Your task to perform on an android device: turn off smart reply in the gmail app Image 0: 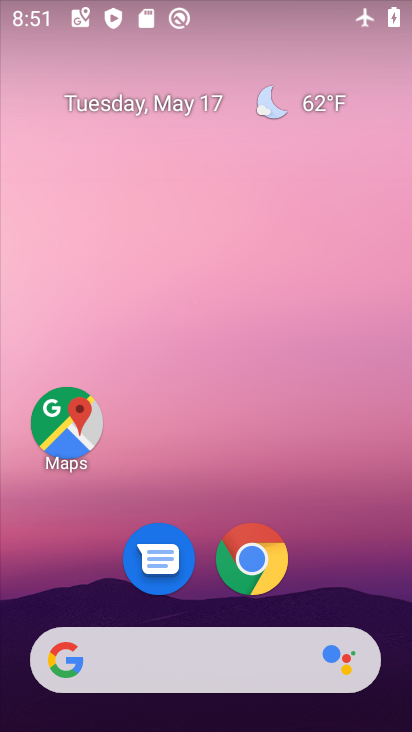
Step 0: drag from (283, 644) to (261, 184)
Your task to perform on an android device: turn off smart reply in the gmail app Image 1: 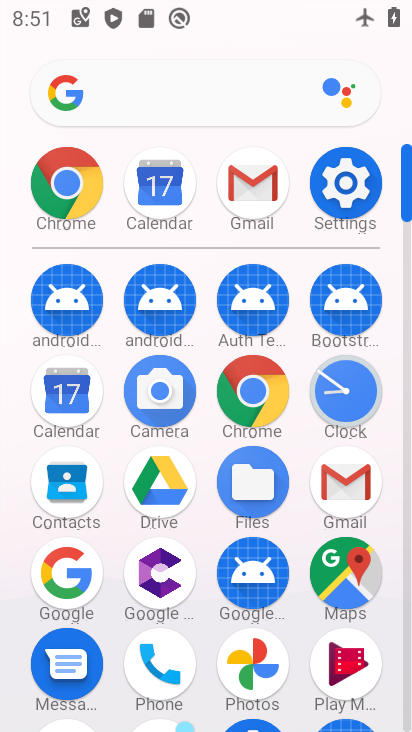
Step 1: click (349, 184)
Your task to perform on an android device: turn off smart reply in the gmail app Image 2: 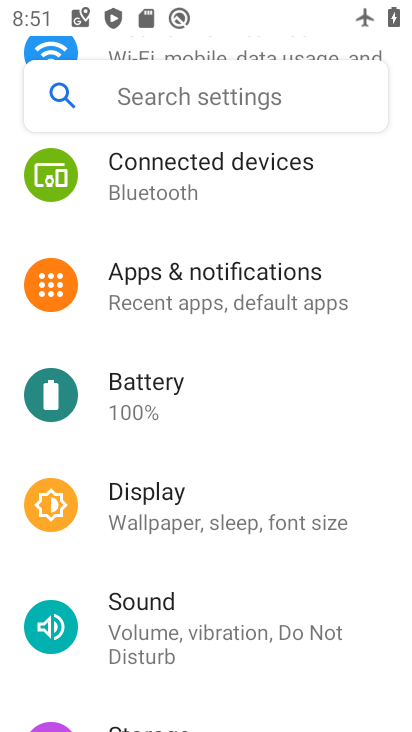
Step 2: press home button
Your task to perform on an android device: turn off smart reply in the gmail app Image 3: 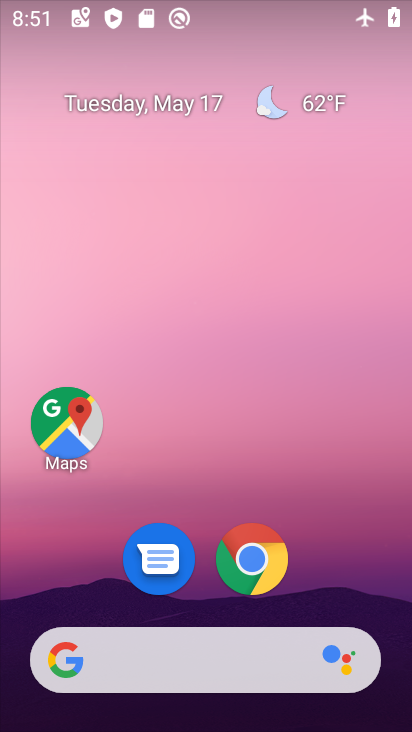
Step 3: drag from (202, 683) to (178, 219)
Your task to perform on an android device: turn off smart reply in the gmail app Image 4: 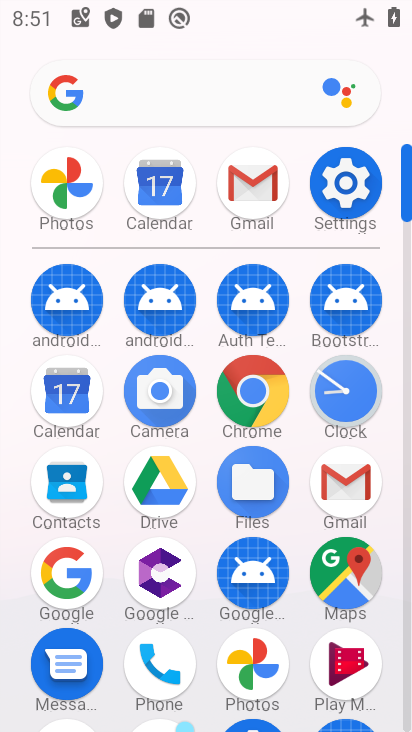
Step 4: click (273, 216)
Your task to perform on an android device: turn off smart reply in the gmail app Image 5: 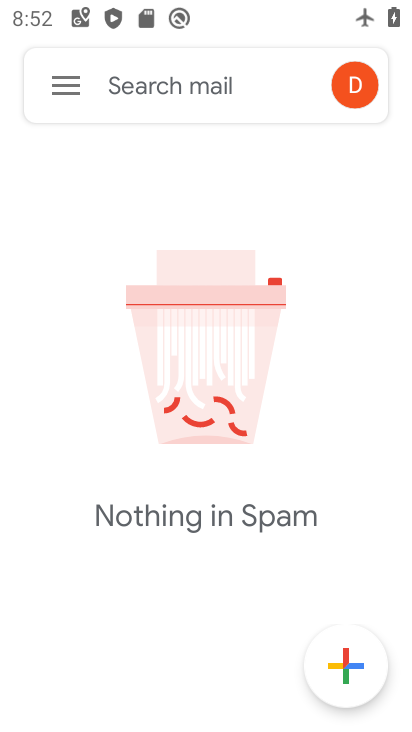
Step 5: click (65, 91)
Your task to perform on an android device: turn off smart reply in the gmail app Image 6: 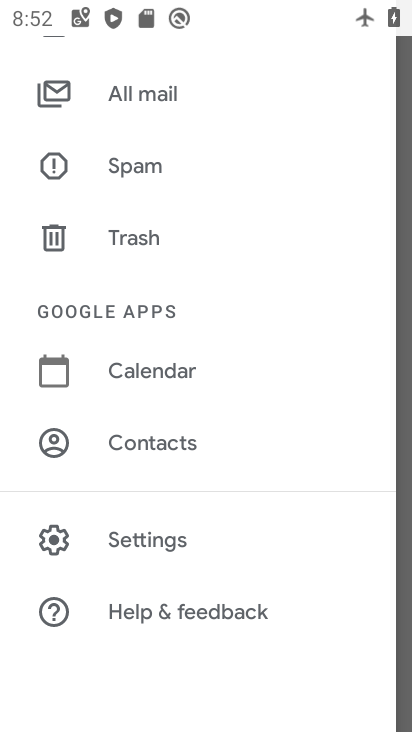
Step 6: click (145, 541)
Your task to perform on an android device: turn off smart reply in the gmail app Image 7: 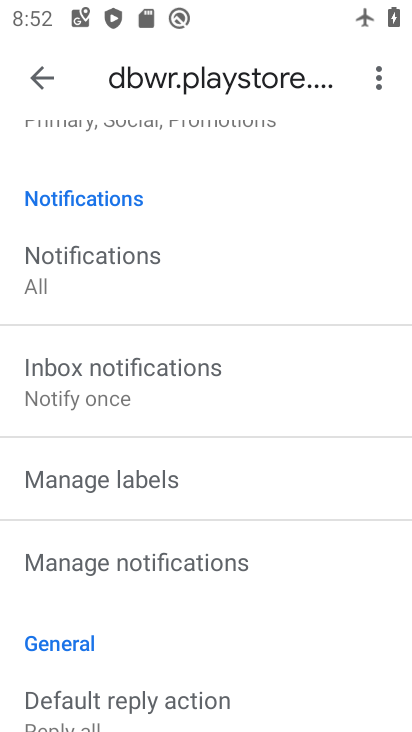
Step 7: drag from (177, 566) to (17, 78)
Your task to perform on an android device: turn off smart reply in the gmail app Image 8: 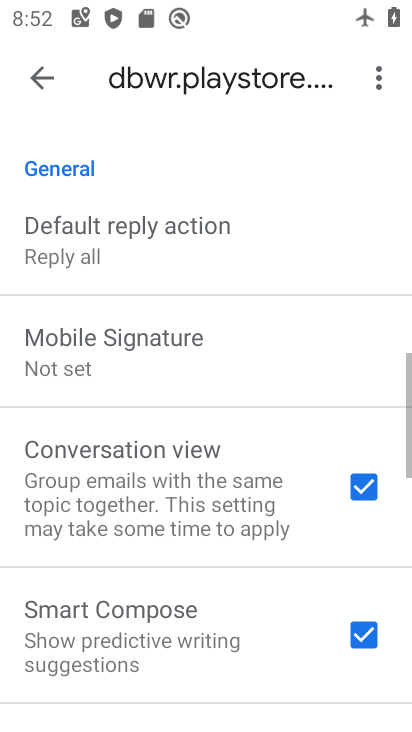
Step 8: drag from (139, 490) to (220, 162)
Your task to perform on an android device: turn off smart reply in the gmail app Image 9: 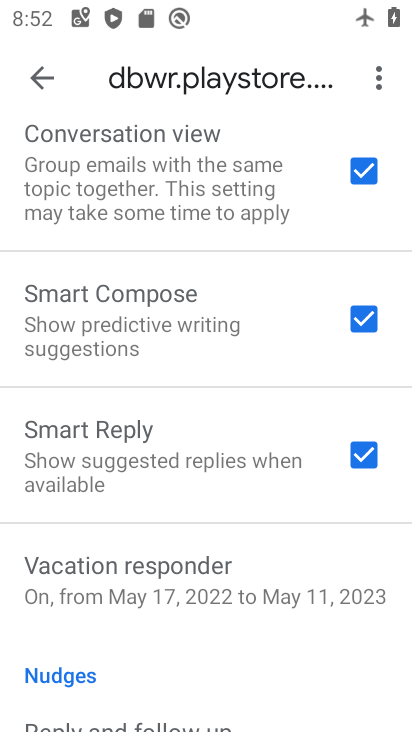
Step 9: click (355, 465)
Your task to perform on an android device: turn off smart reply in the gmail app Image 10: 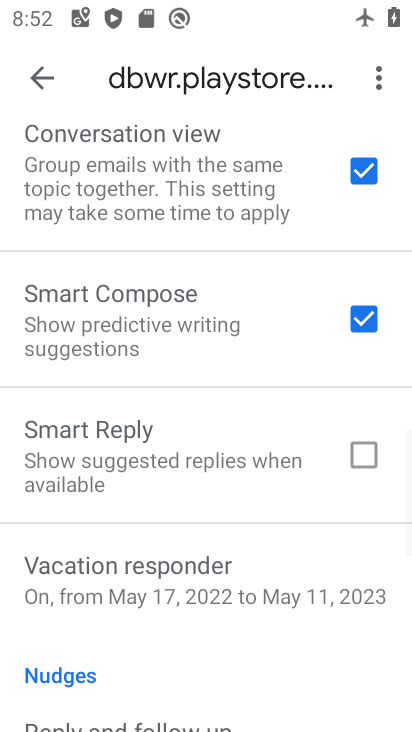
Step 10: task complete